Your task to perform on an android device: Go to location settings Image 0: 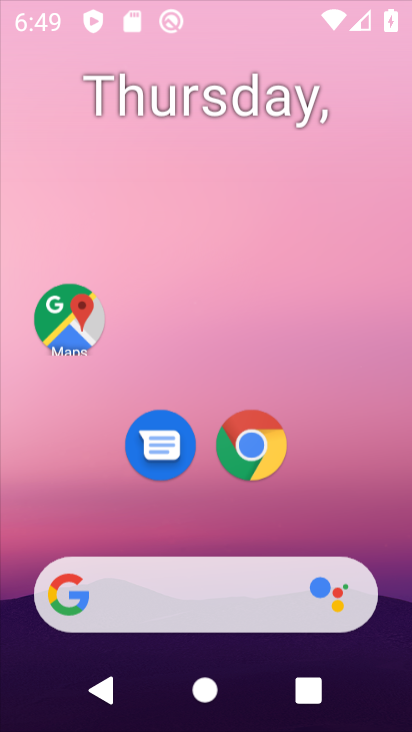
Step 0: click (249, 473)
Your task to perform on an android device: Go to location settings Image 1: 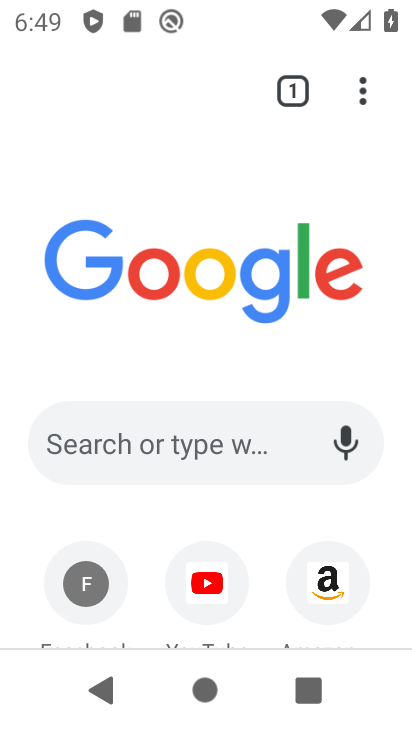
Step 1: press home button
Your task to perform on an android device: Go to location settings Image 2: 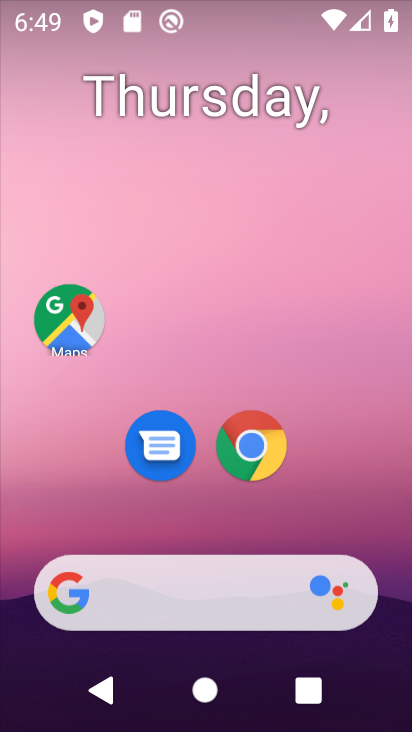
Step 2: drag from (322, 510) to (238, 41)
Your task to perform on an android device: Go to location settings Image 3: 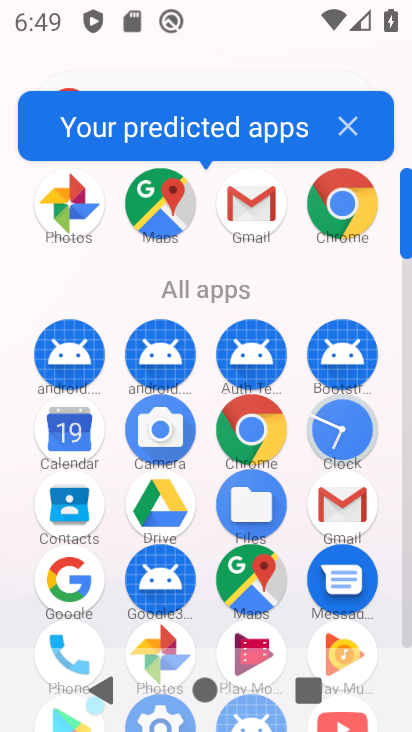
Step 3: drag from (207, 572) to (181, 223)
Your task to perform on an android device: Go to location settings Image 4: 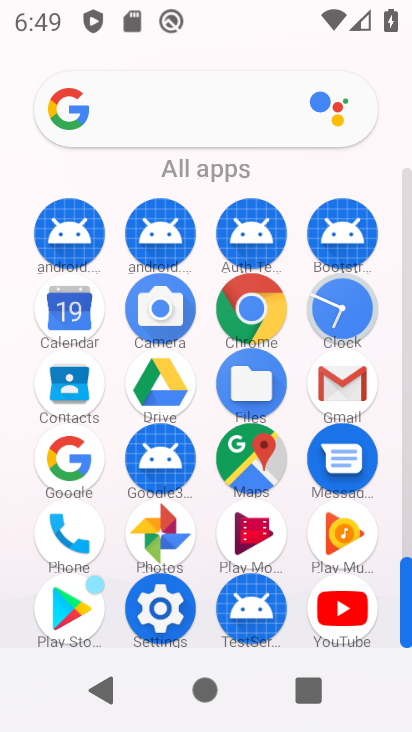
Step 4: click (164, 609)
Your task to perform on an android device: Go to location settings Image 5: 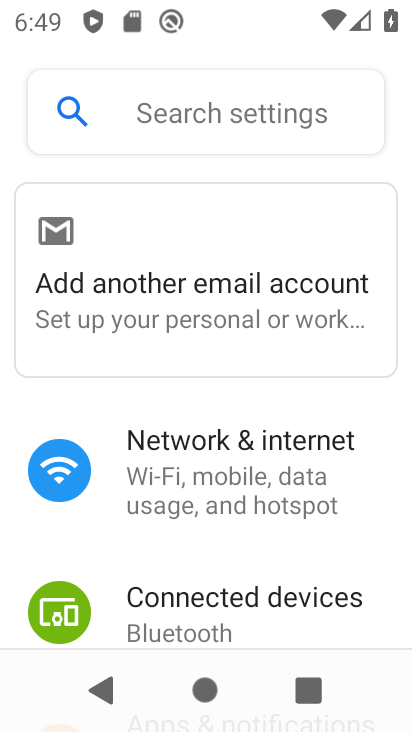
Step 5: drag from (322, 528) to (230, 261)
Your task to perform on an android device: Go to location settings Image 6: 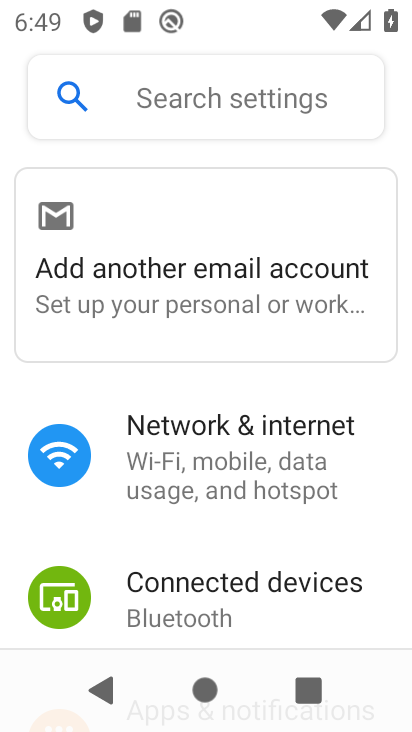
Step 6: drag from (266, 463) to (243, 180)
Your task to perform on an android device: Go to location settings Image 7: 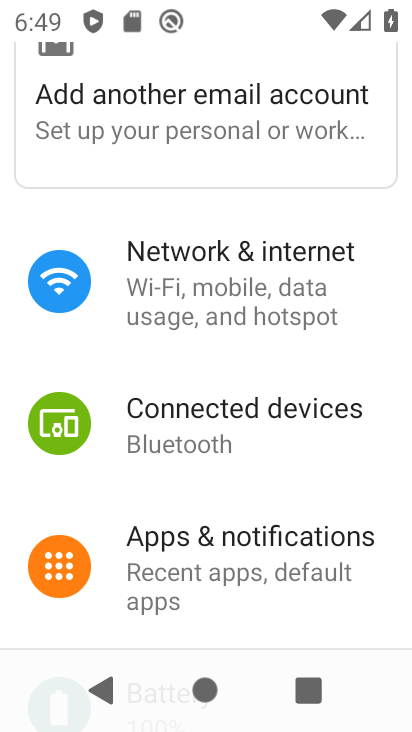
Step 7: drag from (232, 450) to (195, 198)
Your task to perform on an android device: Go to location settings Image 8: 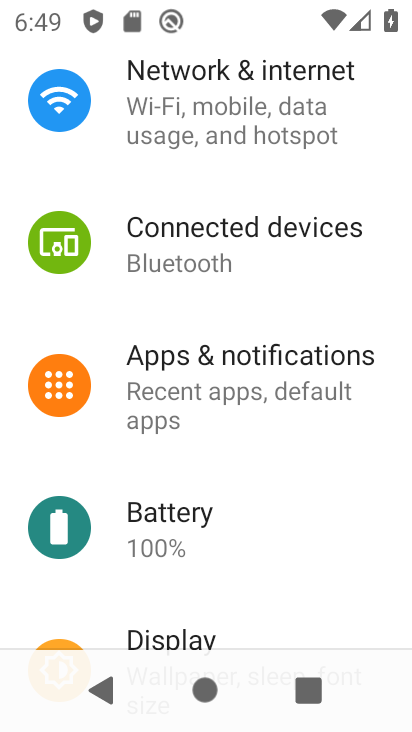
Step 8: drag from (211, 557) to (209, 247)
Your task to perform on an android device: Go to location settings Image 9: 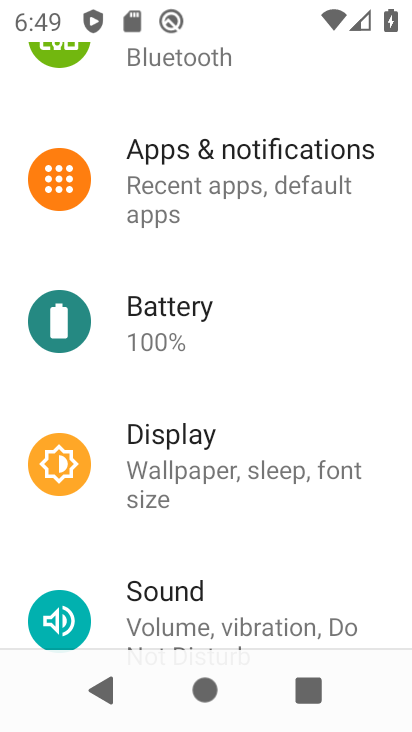
Step 9: drag from (265, 510) to (243, 195)
Your task to perform on an android device: Go to location settings Image 10: 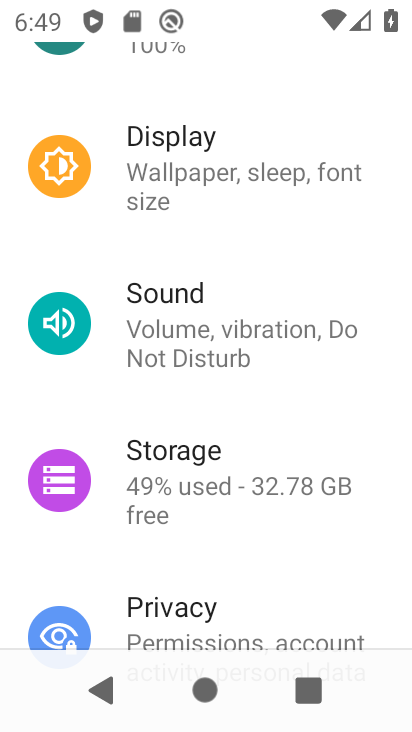
Step 10: drag from (220, 518) to (206, 159)
Your task to perform on an android device: Go to location settings Image 11: 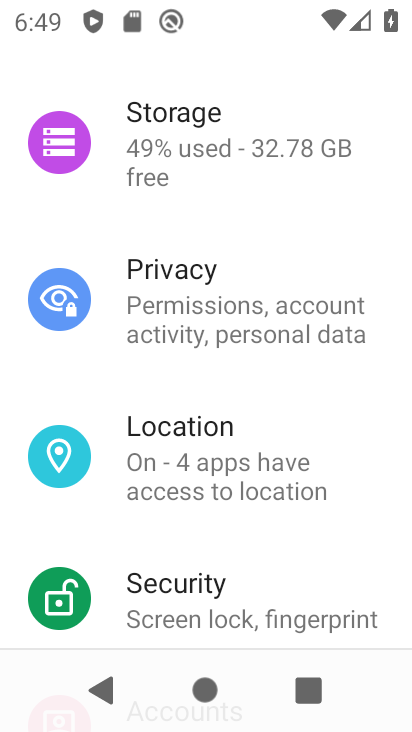
Step 11: click (203, 432)
Your task to perform on an android device: Go to location settings Image 12: 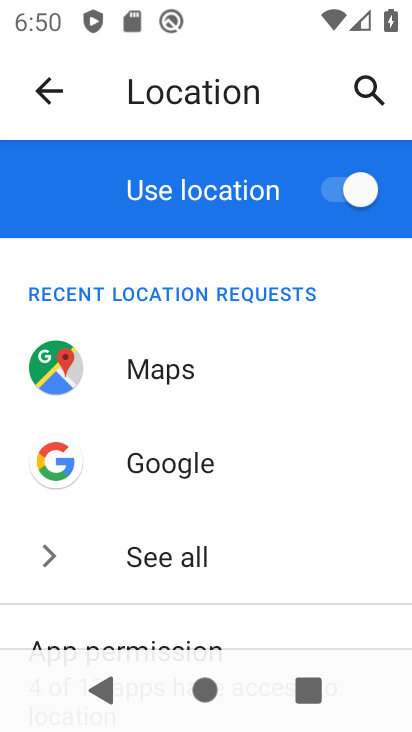
Step 12: task complete